Your task to perform on an android device: turn on the 12-hour format for clock Image 0: 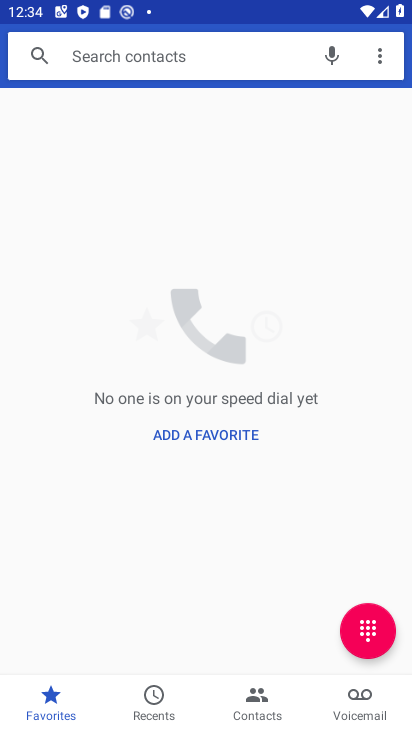
Step 0: press home button
Your task to perform on an android device: turn on the 12-hour format for clock Image 1: 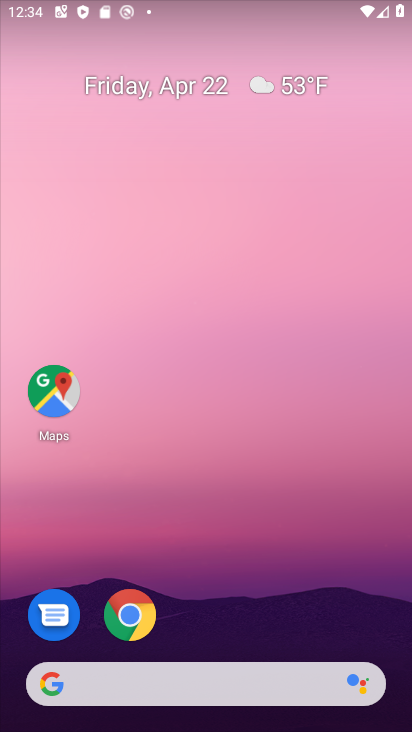
Step 1: drag from (369, 604) to (372, 14)
Your task to perform on an android device: turn on the 12-hour format for clock Image 2: 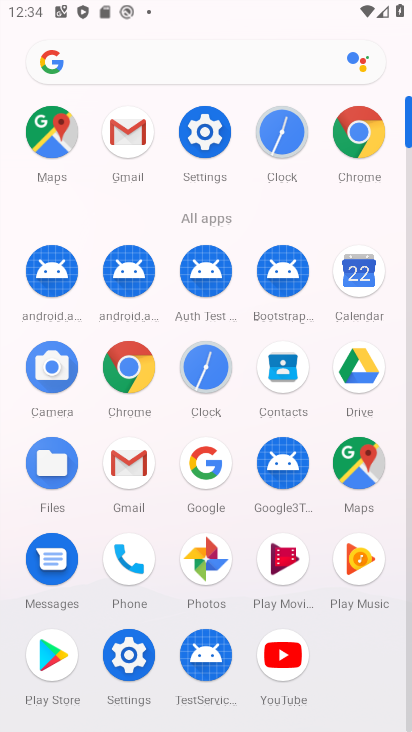
Step 2: click (283, 141)
Your task to perform on an android device: turn on the 12-hour format for clock Image 3: 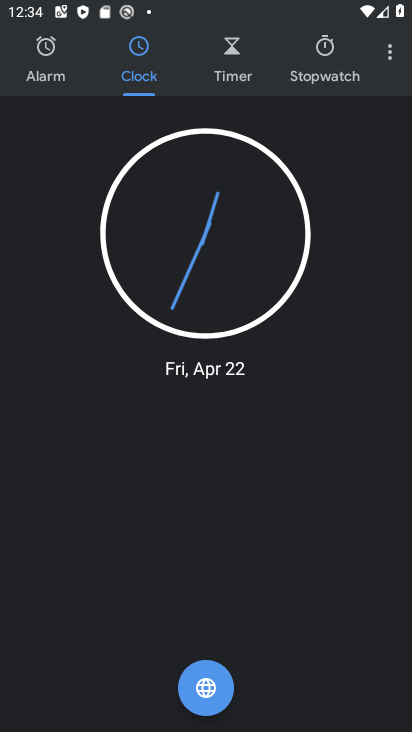
Step 3: click (394, 62)
Your task to perform on an android device: turn on the 12-hour format for clock Image 4: 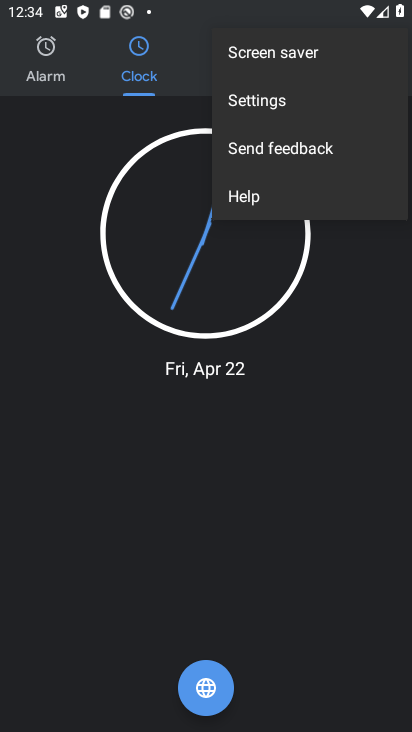
Step 4: click (267, 113)
Your task to perform on an android device: turn on the 12-hour format for clock Image 5: 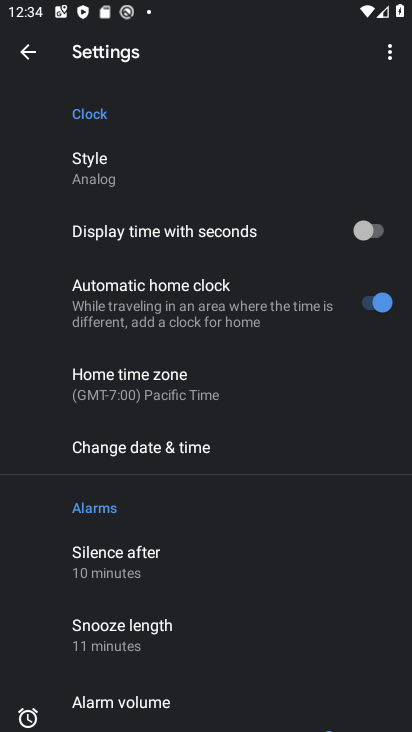
Step 5: click (153, 446)
Your task to perform on an android device: turn on the 12-hour format for clock Image 6: 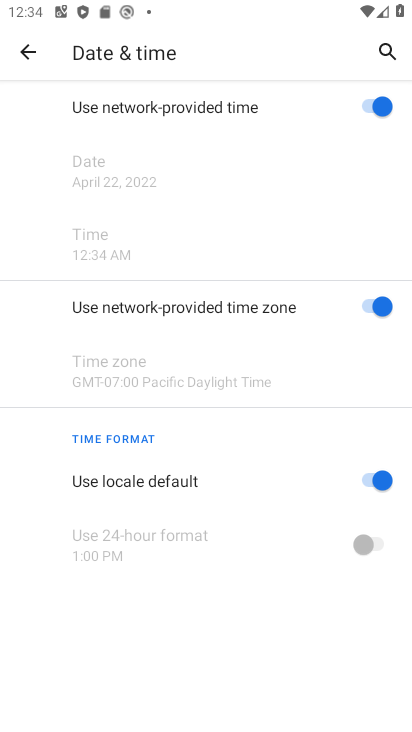
Step 6: task complete